Your task to perform on an android device: Is it going to rain this weekend? Image 0: 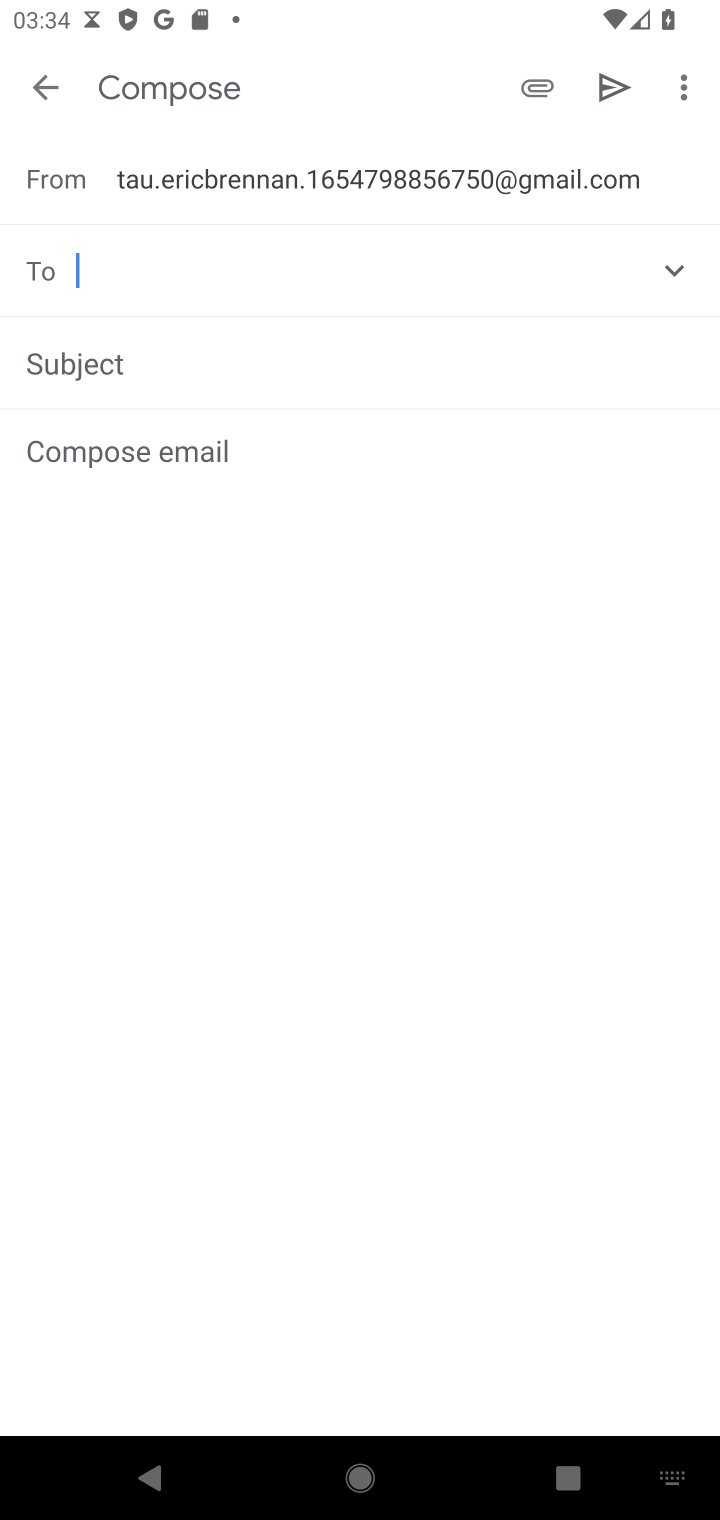
Step 0: press home button
Your task to perform on an android device: Is it going to rain this weekend? Image 1: 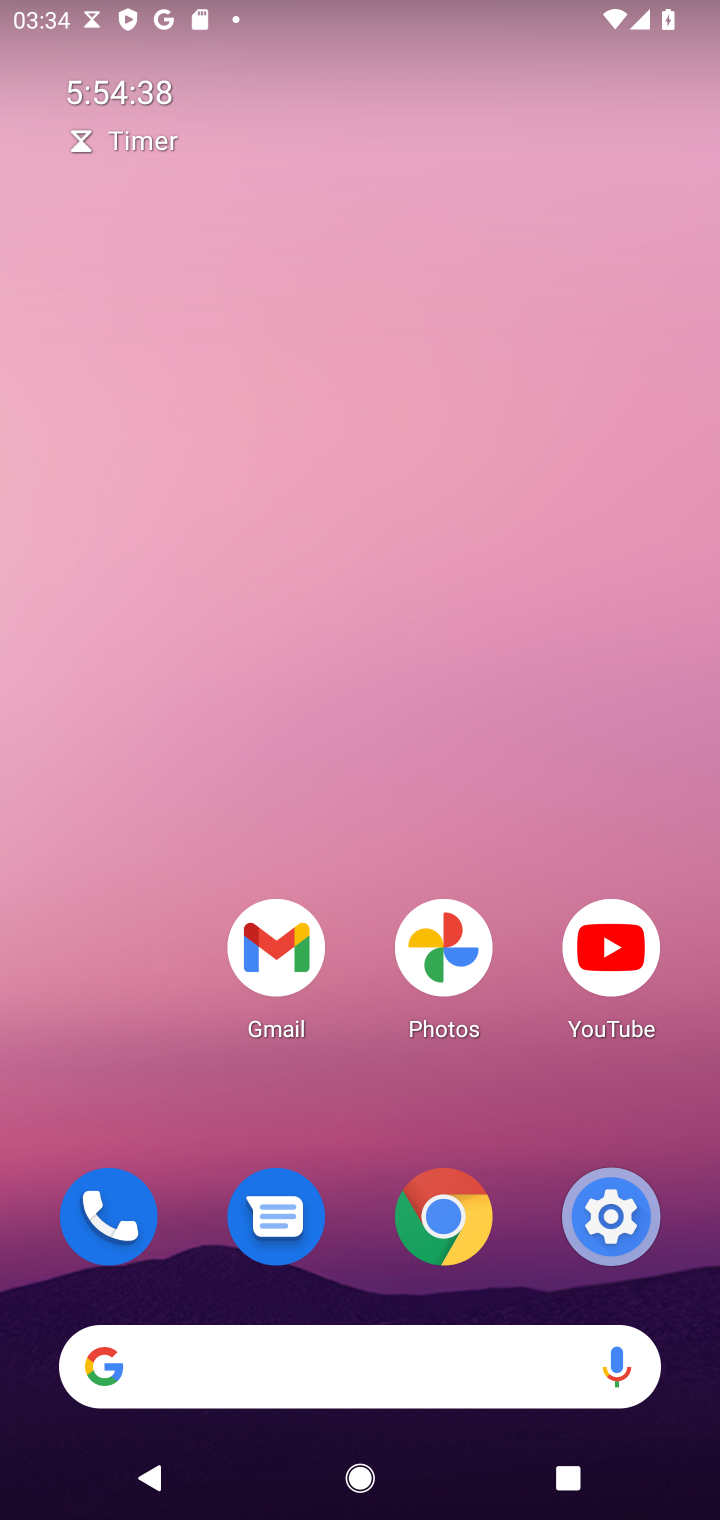
Step 1: click (325, 1355)
Your task to perform on an android device: Is it going to rain this weekend? Image 2: 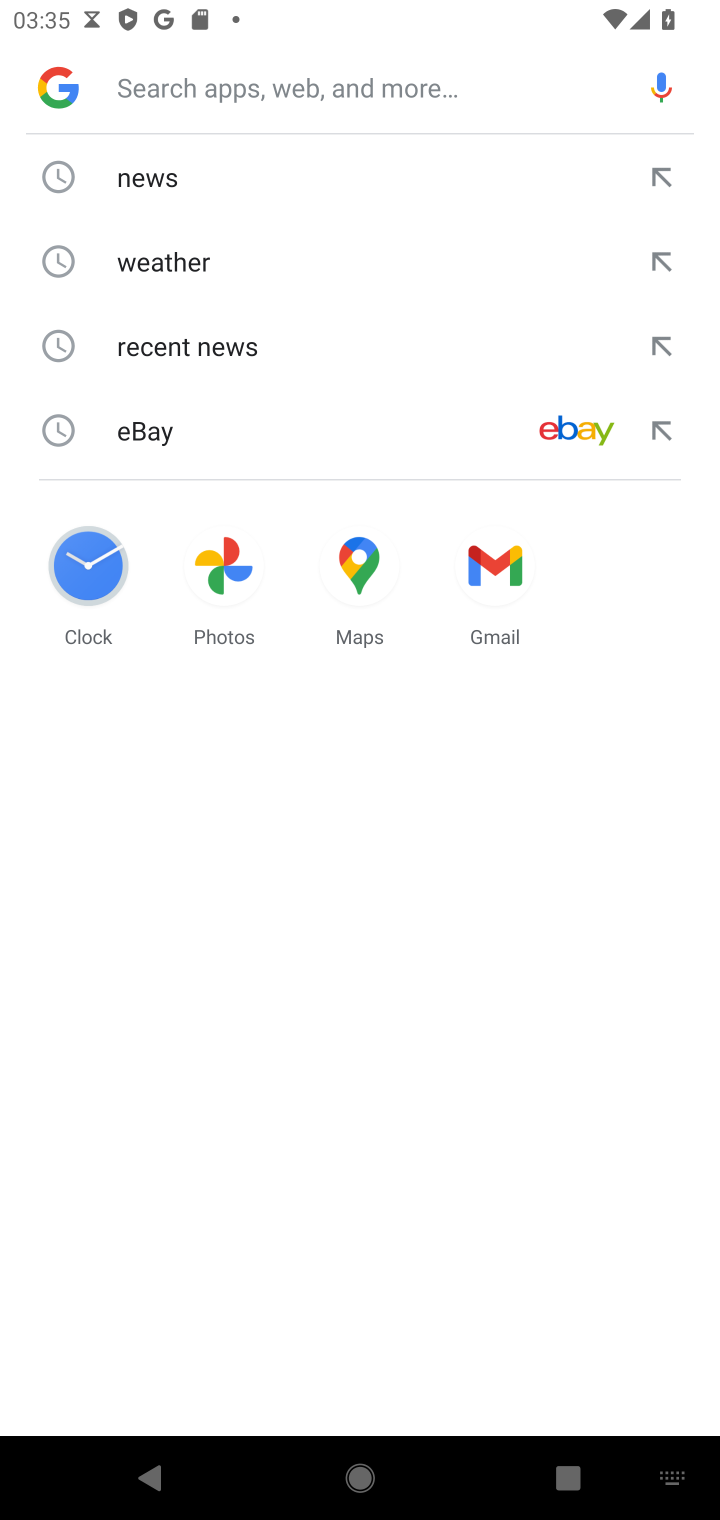
Step 2: type "is it going to rain this weekend"
Your task to perform on an android device: Is it going to rain this weekend? Image 3: 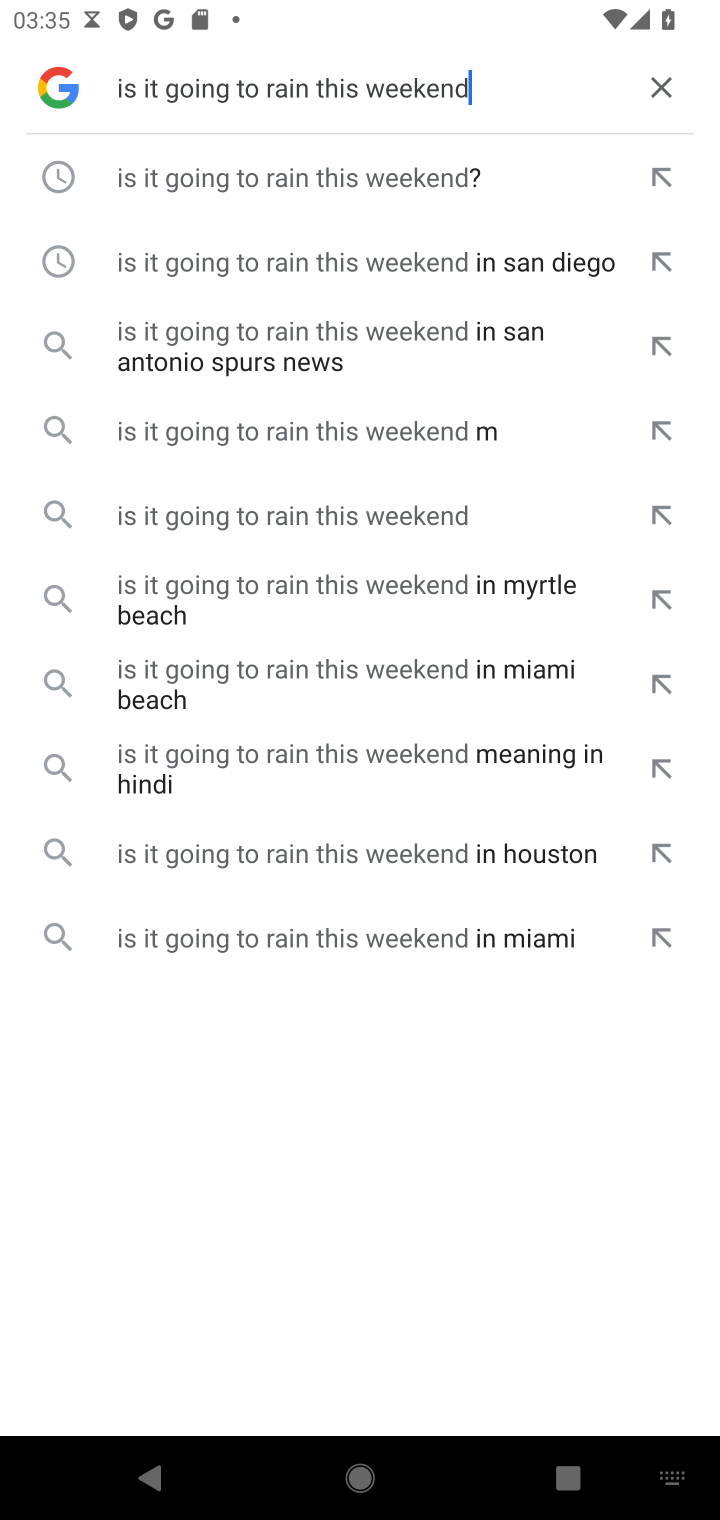
Step 3: click (497, 165)
Your task to perform on an android device: Is it going to rain this weekend? Image 4: 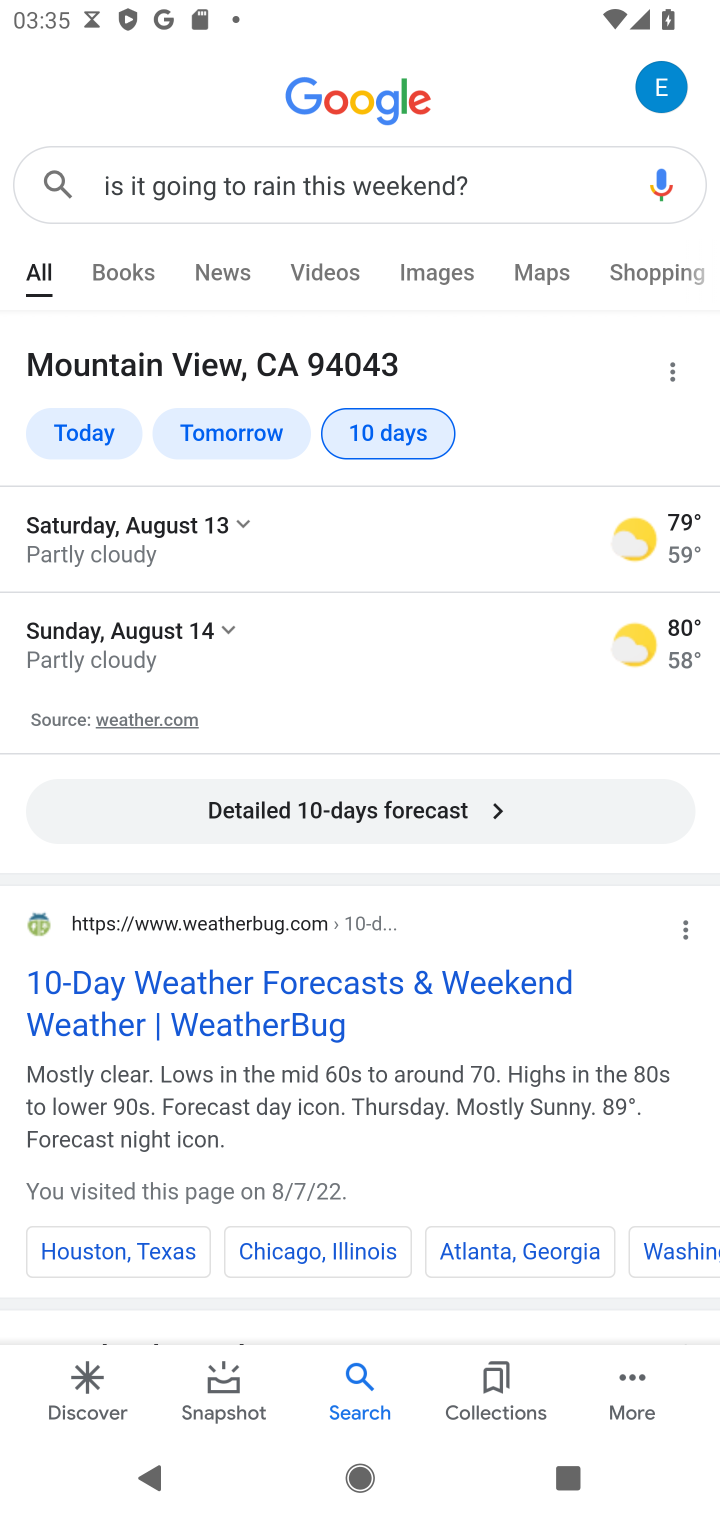
Step 4: task complete